Your task to perform on an android device: turn on sleep mode Image 0: 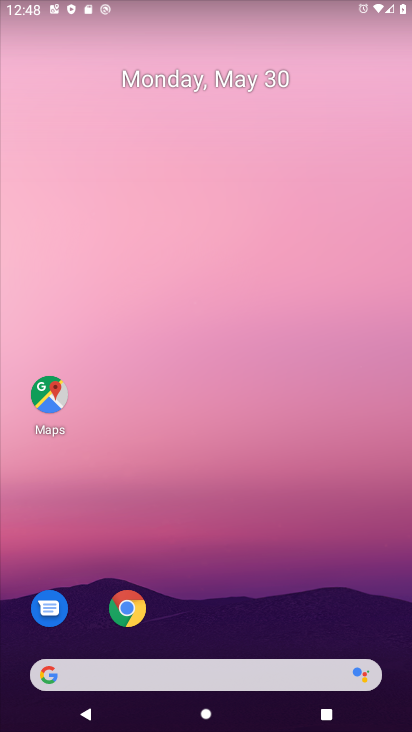
Step 0: drag from (190, 536) to (178, 9)
Your task to perform on an android device: turn on sleep mode Image 1: 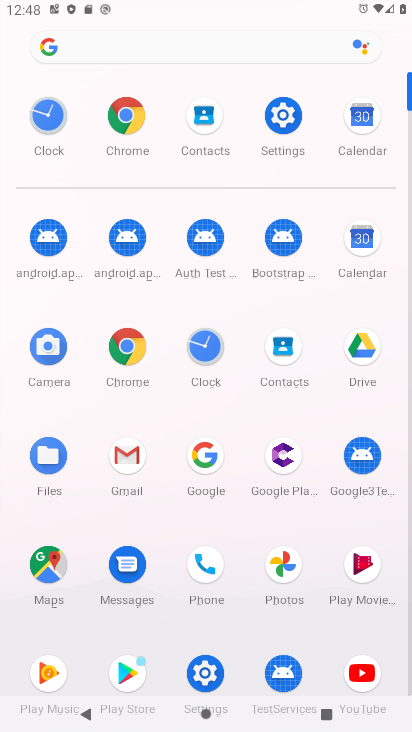
Step 1: click (281, 111)
Your task to perform on an android device: turn on sleep mode Image 2: 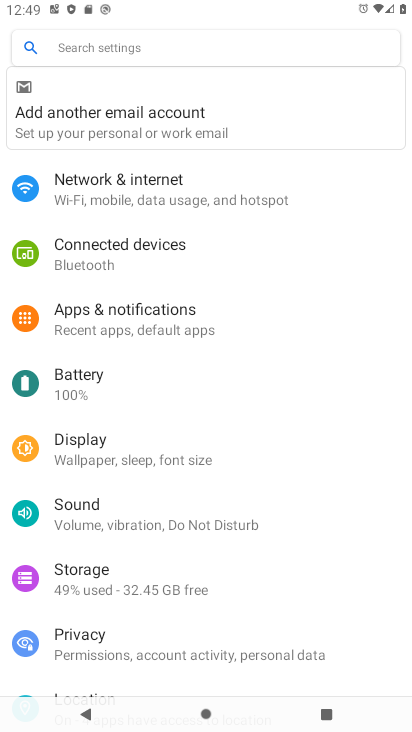
Step 2: click (99, 441)
Your task to perform on an android device: turn on sleep mode Image 3: 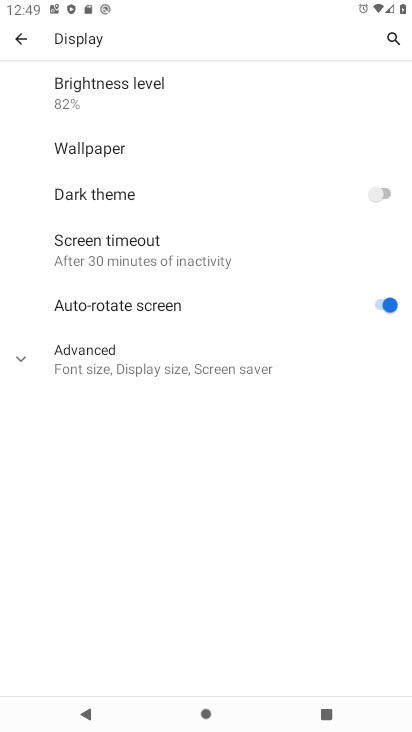
Step 3: click (48, 348)
Your task to perform on an android device: turn on sleep mode Image 4: 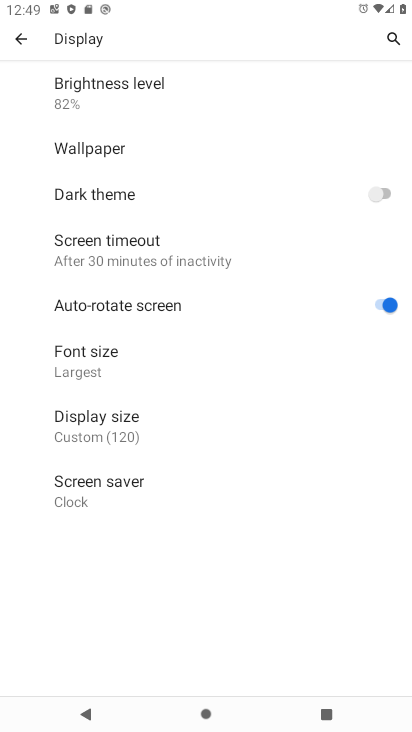
Step 4: task complete